Your task to perform on an android device: turn off location Image 0: 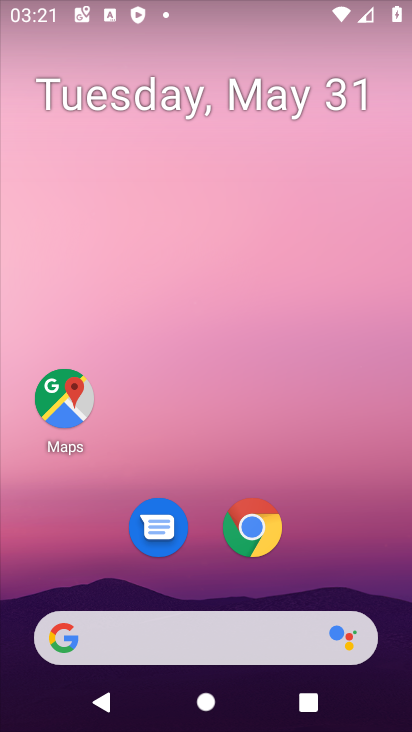
Step 0: drag from (396, 644) to (303, 24)
Your task to perform on an android device: turn off location Image 1: 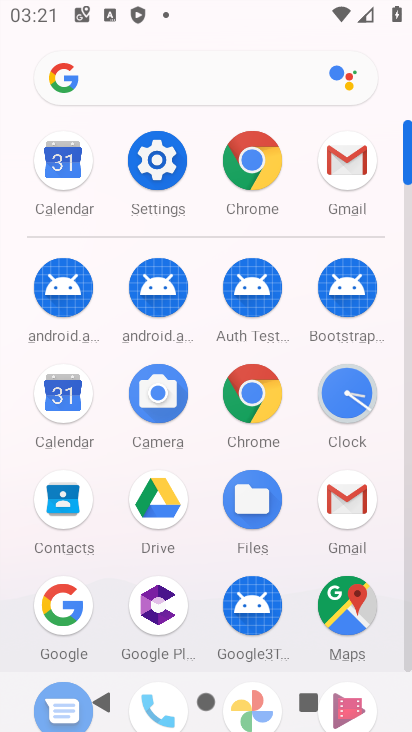
Step 1: click (409, 648)
Your task to perform on an android device: turn off location Image 2: 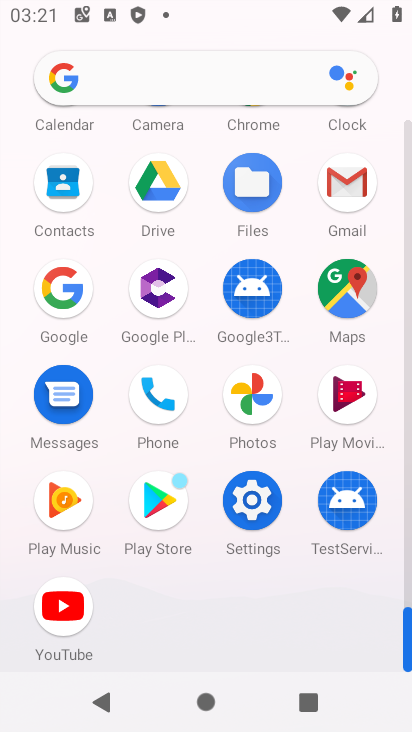
Step 2: click (255, 502)
Your task to perform on an android device: turn off location Image 3: 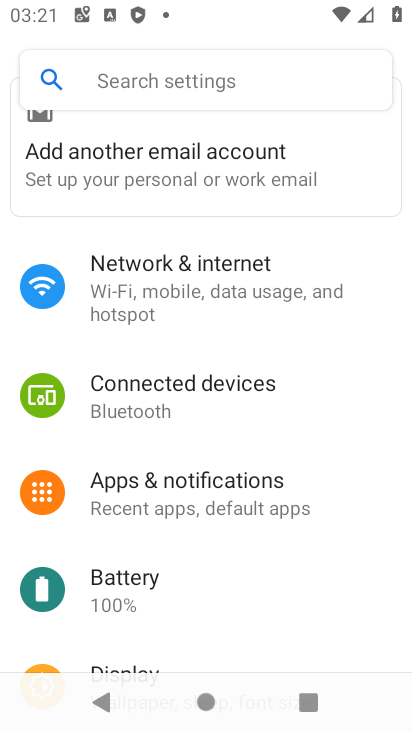
Step 3: drag from (339, 585) to (338, 166)
Your task to perform on an android device: turn off location Image 4: 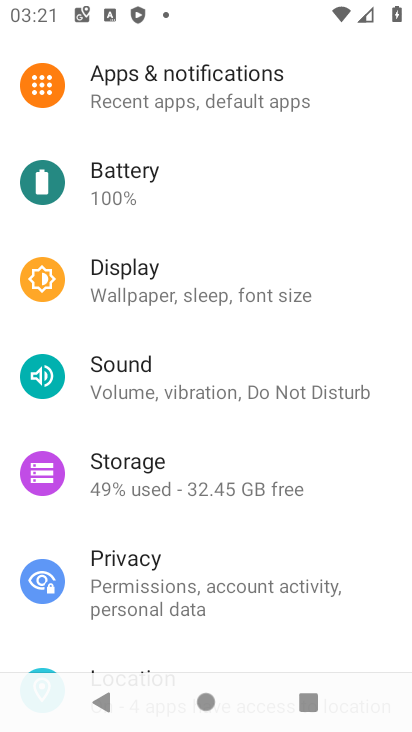
Step 4: drag from (301, 530) to (362, 156)
Your task to perform on an android device: turn off location Image 5: 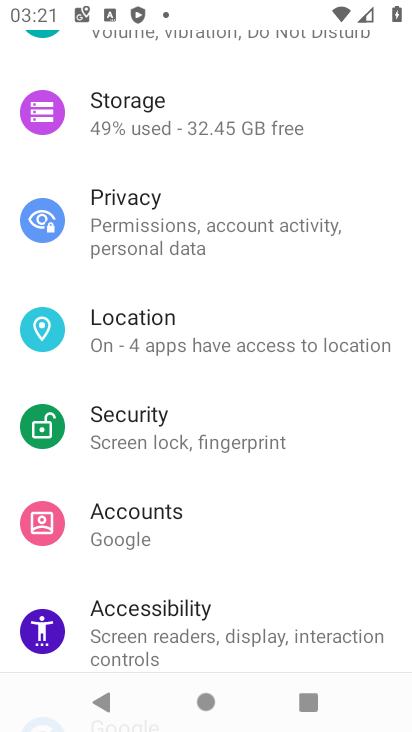
Step 5: click (116, 320)
Your task to perform on an android device: turn off location Image 6: 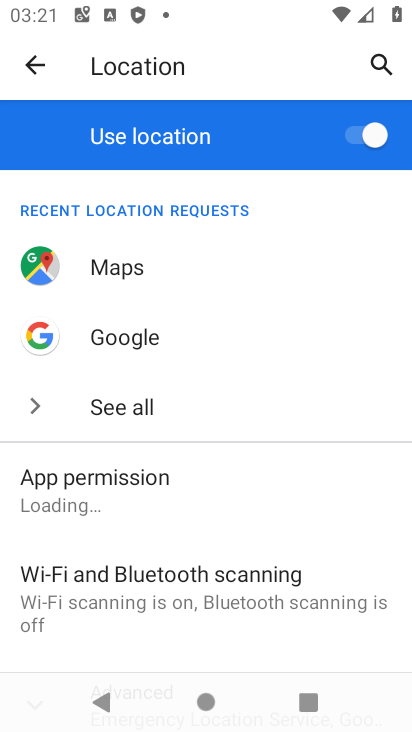
Step 6: click (343, 125)
Your task to perform on an android device: turn off location Image 7: 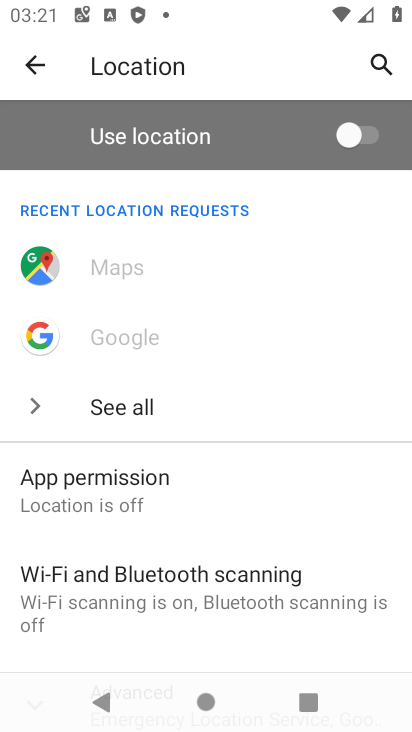
Step 7: task complete